Your task to perform on an android device: show emergency info Image 0: 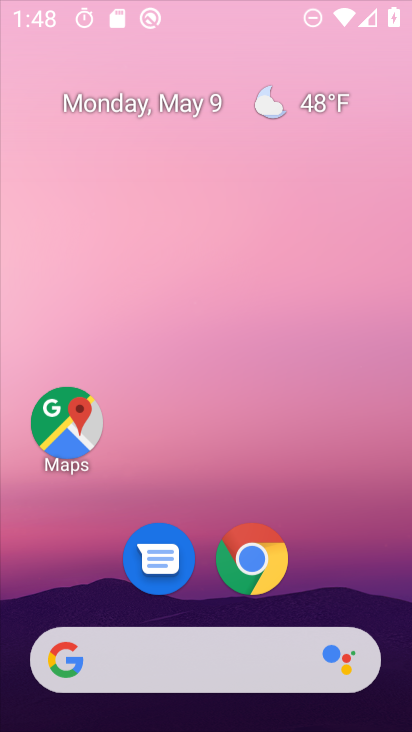
Step 0: drag from (184, 478) to (247, 150)
Your task to perform on an android device: show emergency info Image 1: 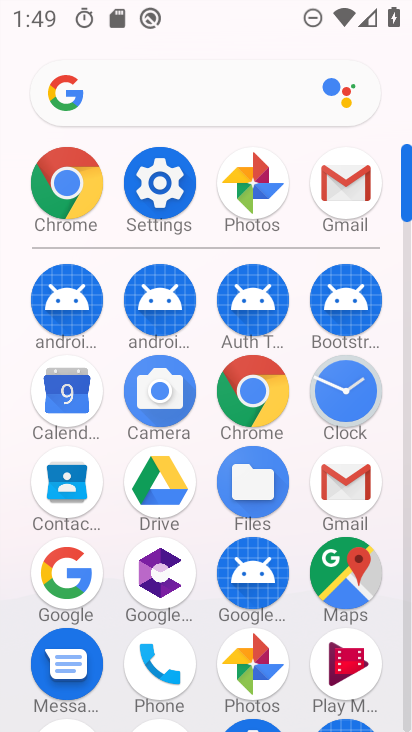
Step 1: click (156, 182)
Your task to perform on an android device: show emergency info Image 2: 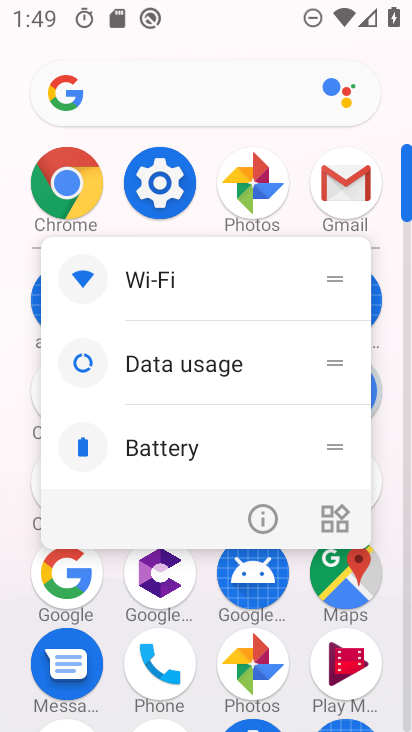
Step 2: click (260, 530)
Your task to perform on an android device: show emergency info Image 3: 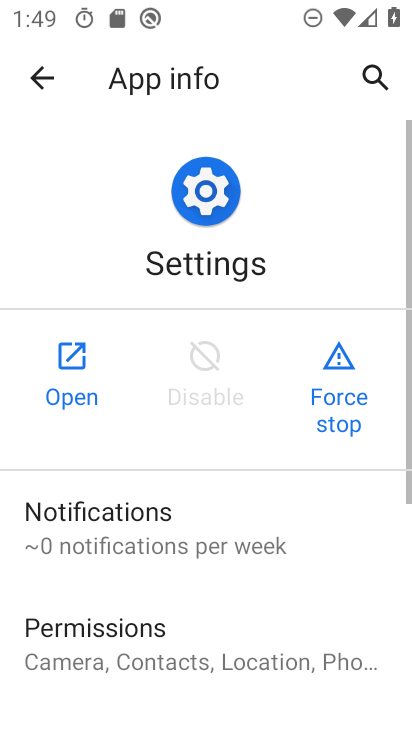
Step 3: click (82, 398)
Your task to perform on an android device: show emergency info Image 4: 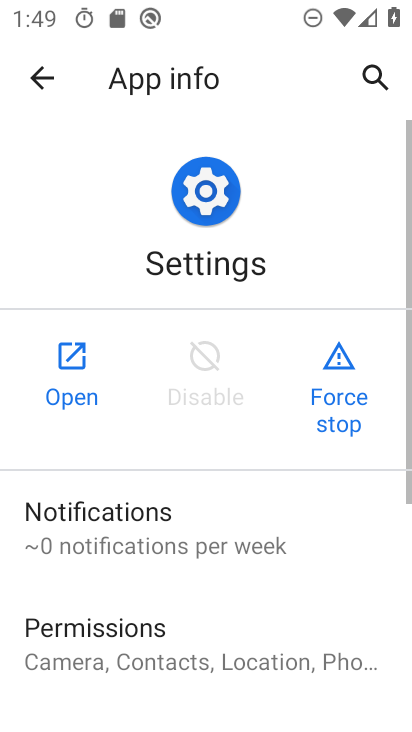
Step 4: click (81, 397)
Your task to perform on an android device: show emergency info Image 5: 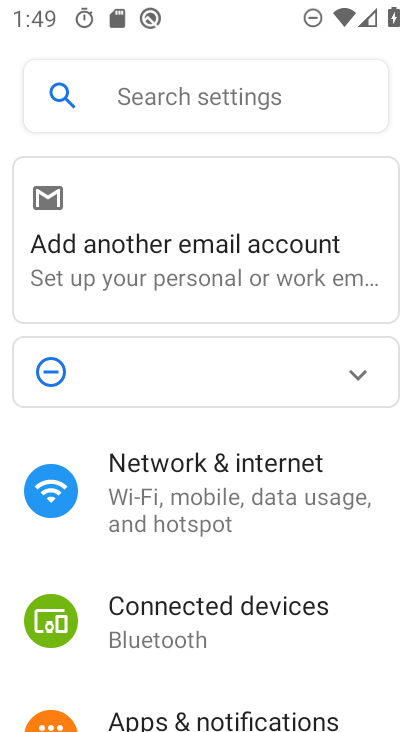
Step 5: drag from (187, 535) to (288, 130)
Your task to perform on an android device: show emergency info Image 6: 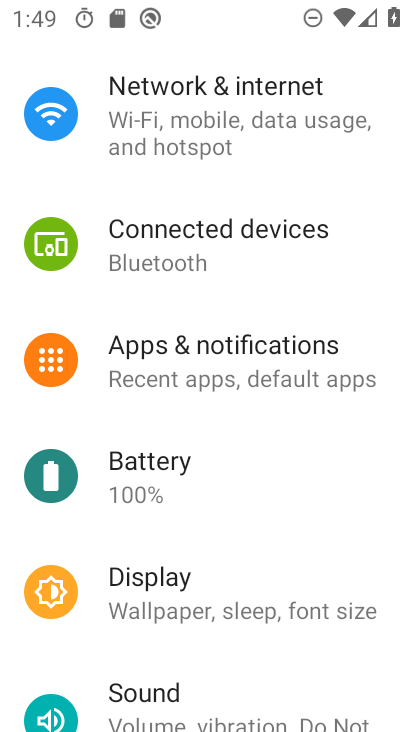
Step 6: drag from (202, 412) to (285, 7)
Your task to perform on an android device: show emergency info Image 7: 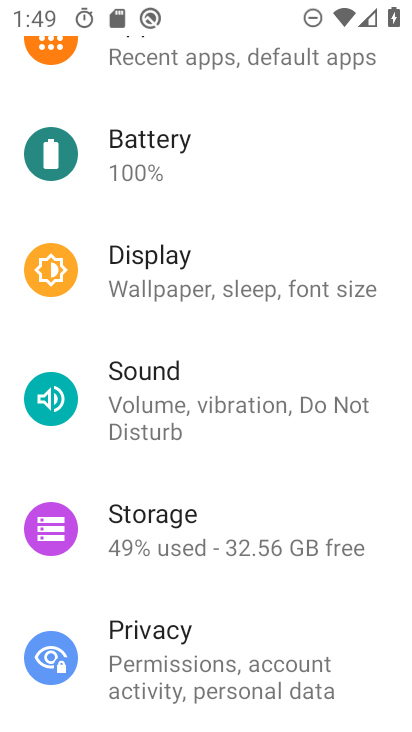
Step 7: drag from (231, 646) to (323, 129)
Your task to perform on an android device: show emergency info Image 8: 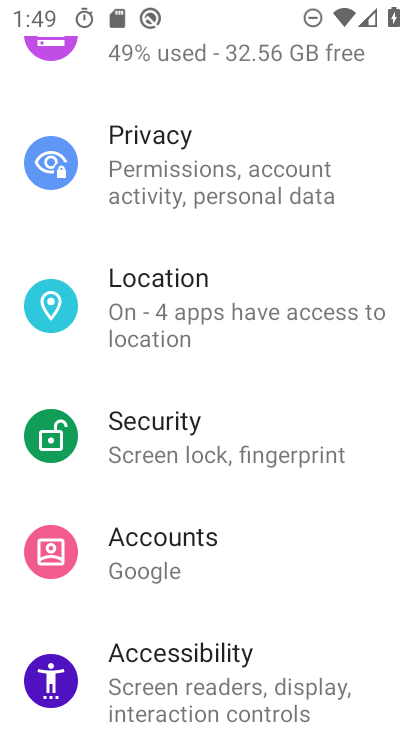
Step 8: drag from (255, 609) to (284, 154)
Your task to perform on an android device: show emergency info Image 9: 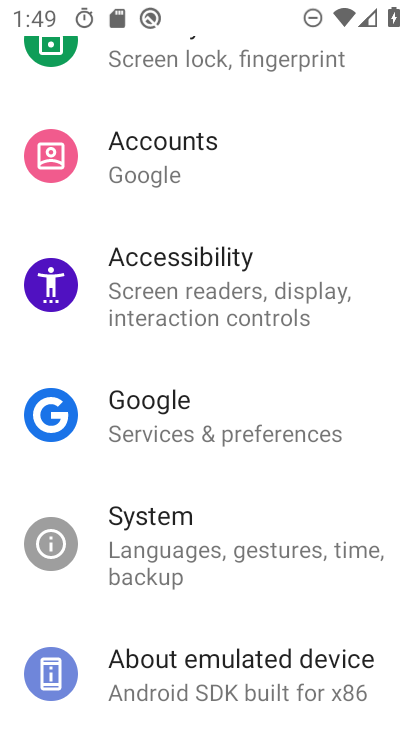
Step 9: click (200, 680)
Your task to perform on an android device: show emergency info Image 10: 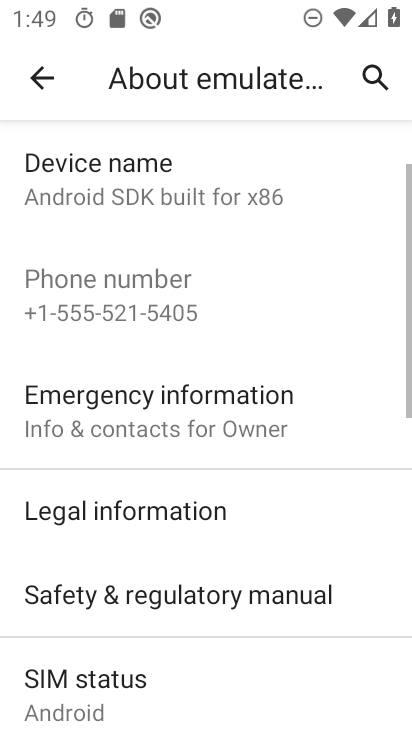
Step 10: drag from (211, 649) to (318, 155)
Your task to perform on an android device: show emergency info Image 11: 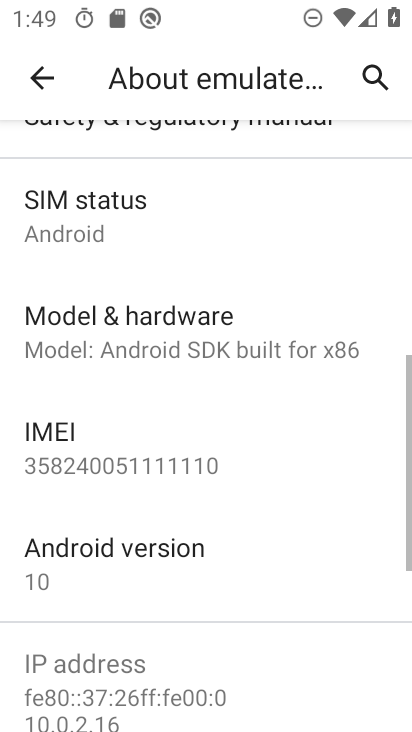
Step 11: drag from (192, 684) to (267, 230)
Your task to perform on an android device: show emergency info Image 12: 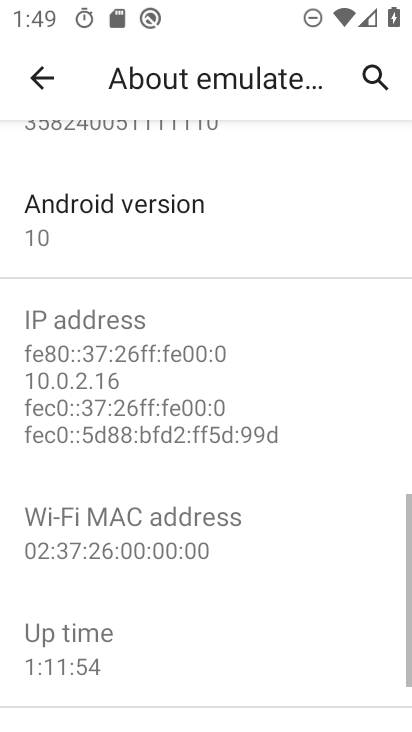
Step 12: drag from (195, 674) to (226, 699)
Your task to perform on an android device: show emergency info Image 13: 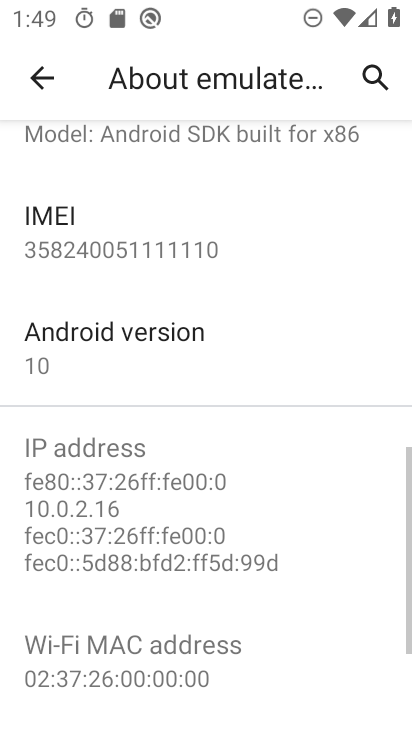
Step 13: drag from (256, 202) to (238, 664)
Your task to perform on an android device: show emergency info Image 14: 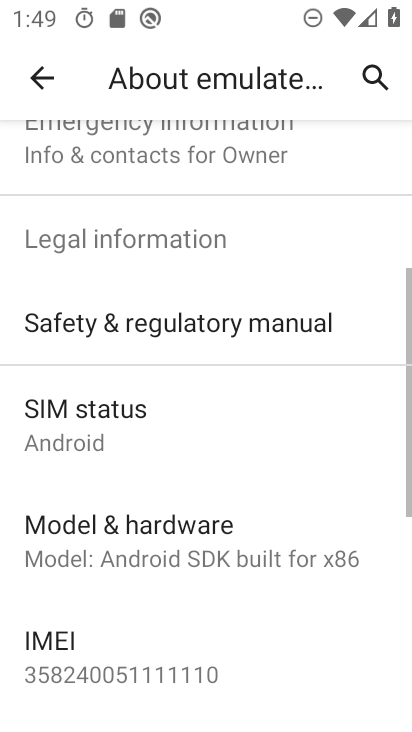
Step 14: drag from (216, 253) to (226, 596)
Your task to perform on an android device: show emergency info Image 15: 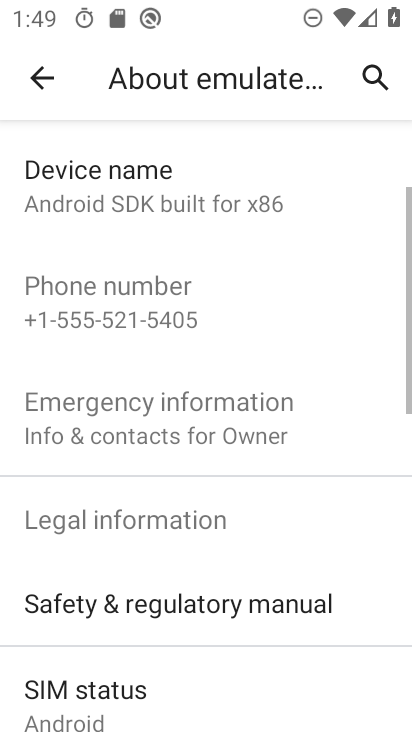
Step 15: click (160, 418)
Your task to perform on an android device: show emergency info Image 16: 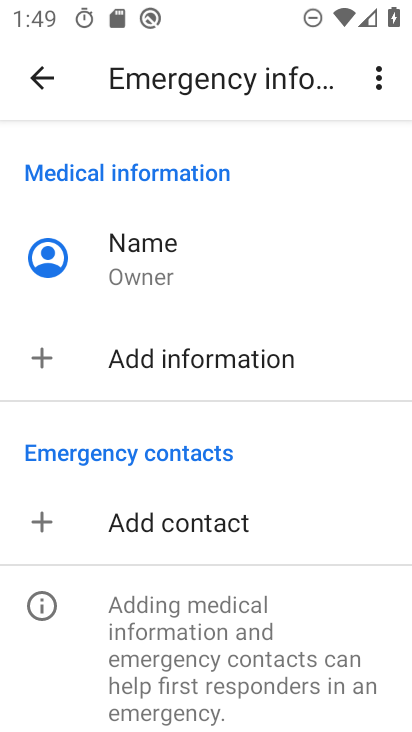
Step 16: task complete